Your task to perform on an android device: uninstall "Microsoft Excel" Image 0: 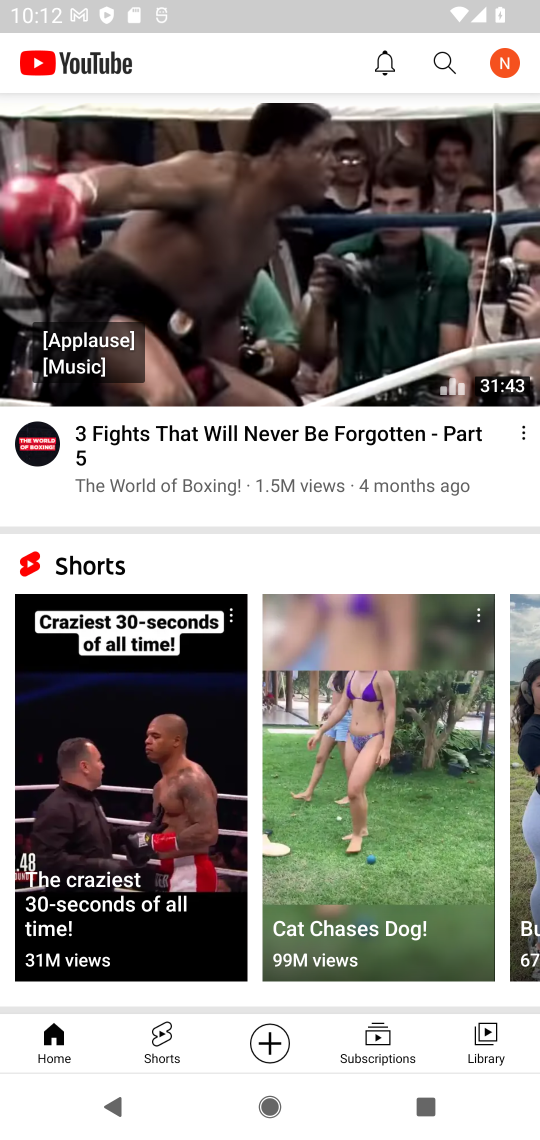
Step 0: press home button
Your task to perform on an android device: uninstall "Microsoft Excel" Image 1: 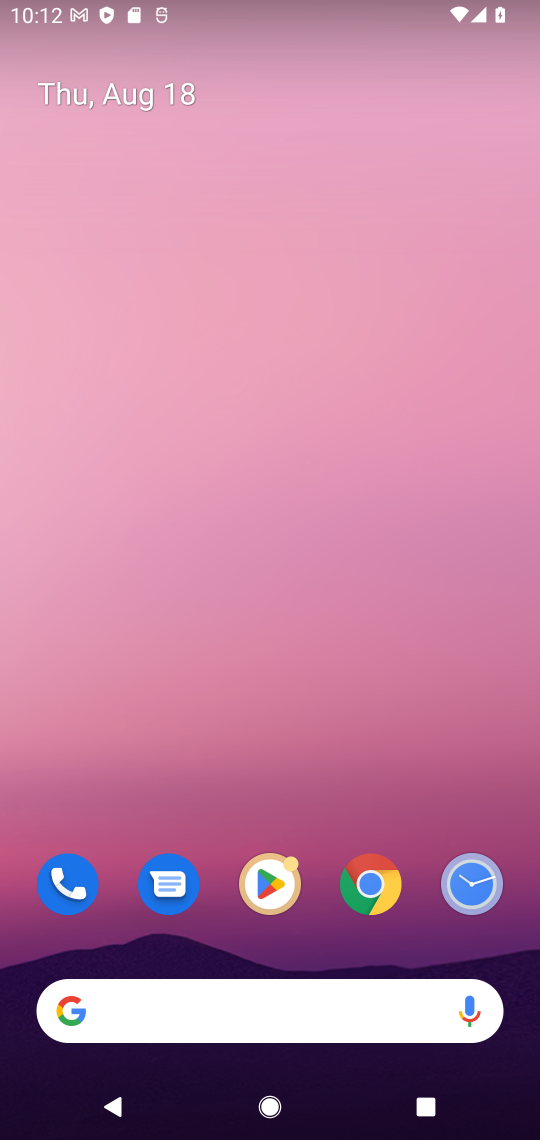
Step 1: drag from (183, 1009) to (278, 92)
Your task to perform on an android device: uninstall "Microsoft Excel" Image 2: 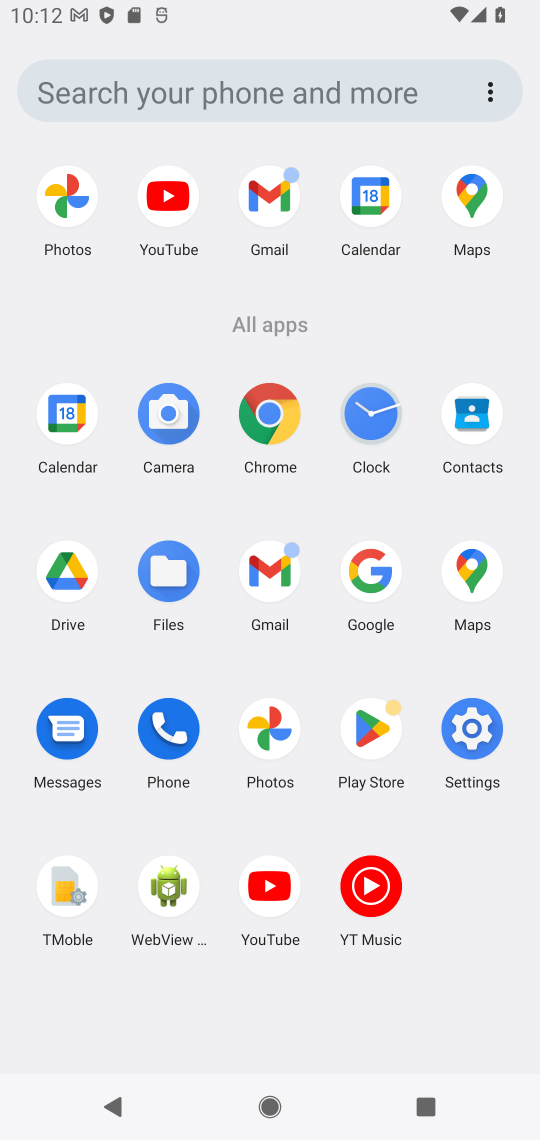
Step 2: click (371, 718)
Your task to perform on an android device: uninstall "Microsoft Excel" Image 3: 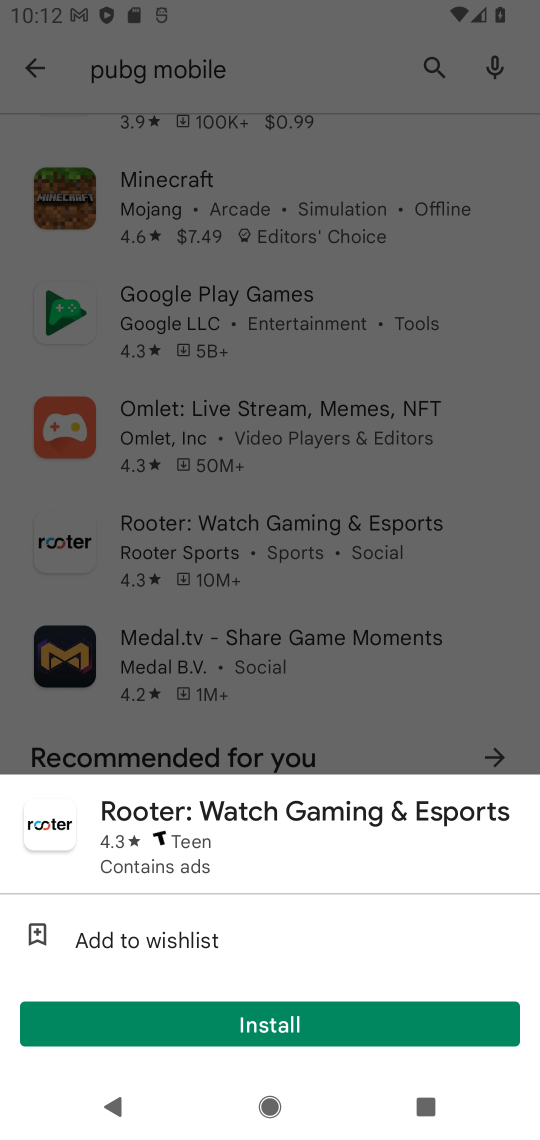
Step 3: press home button
Your task to perform on an android device: uninstall "Microsoft Excel" Image 4: 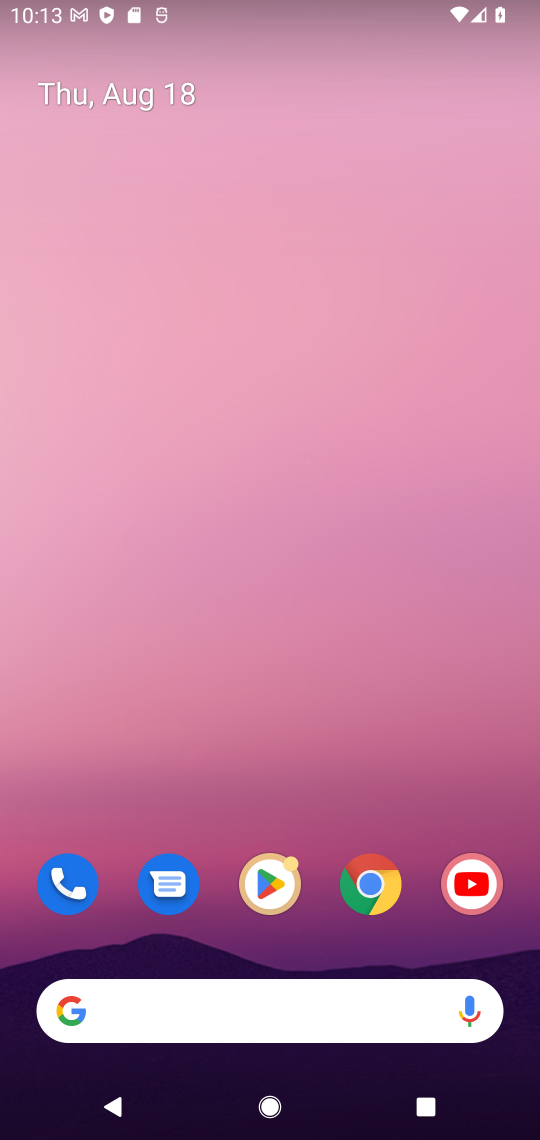
Step 4: drag from (222, 999) to (285, 67)
Your task to perform on an android device: uninstall "Microsoft Excel" Image 5: 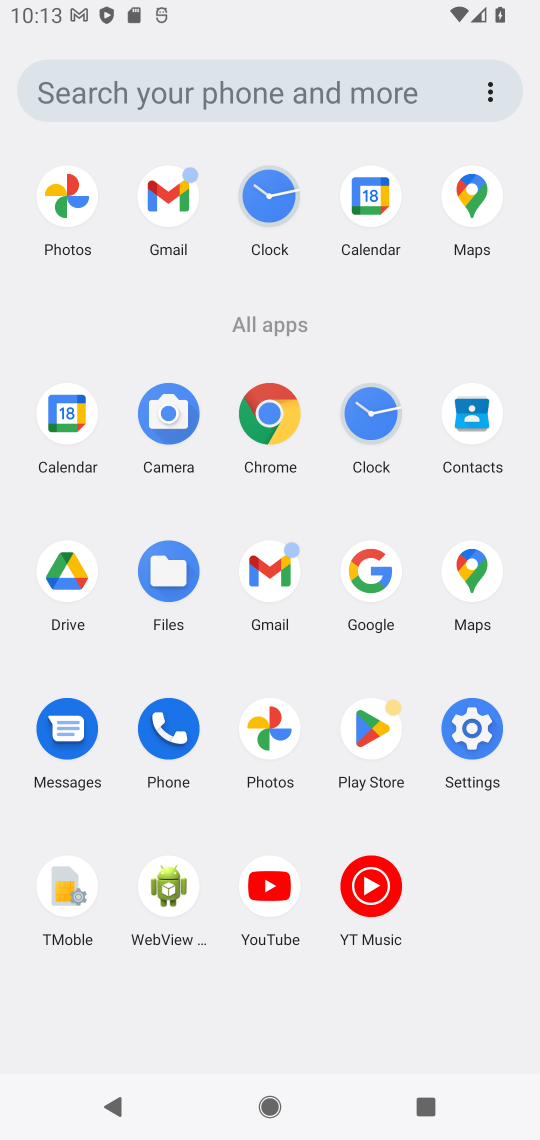
Step 5: click (362, 731)
Your task to perform on an android device: uninstall "Microsoft Excel" Image 6: 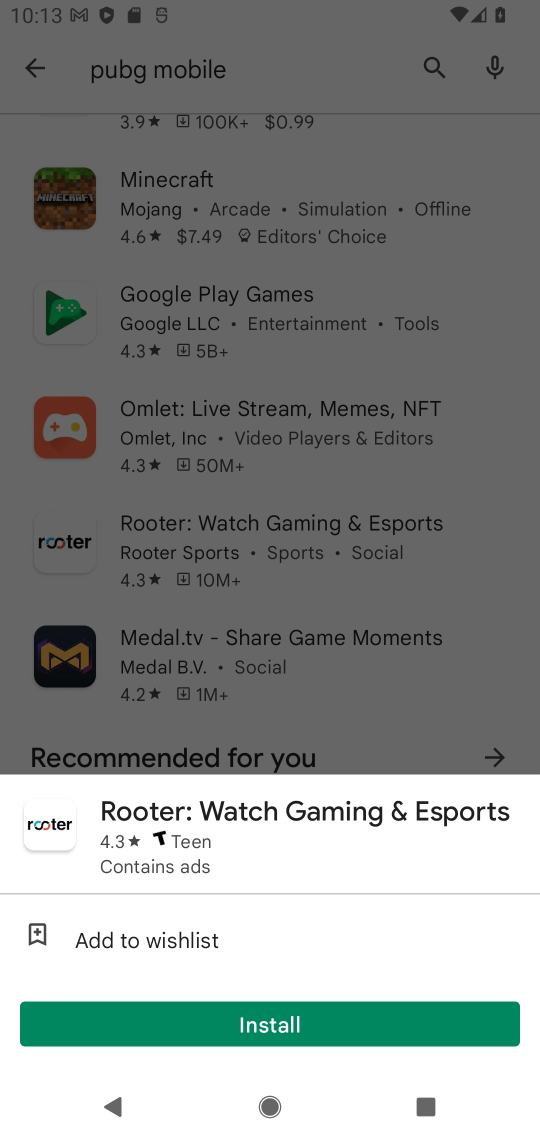
Step 6: click (316, 66)
Your task to perform on an android device: uninstall "Microsoft Excel" Image 7: 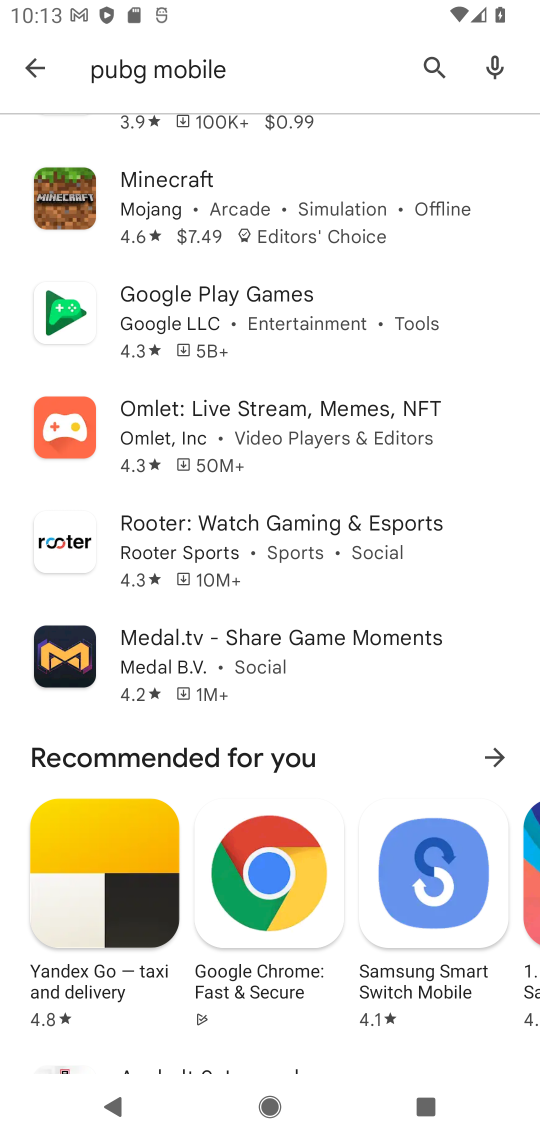
Step 7: press back button
Your task to perform on an android device: uninstall "Microsoft Excel" Image 8: 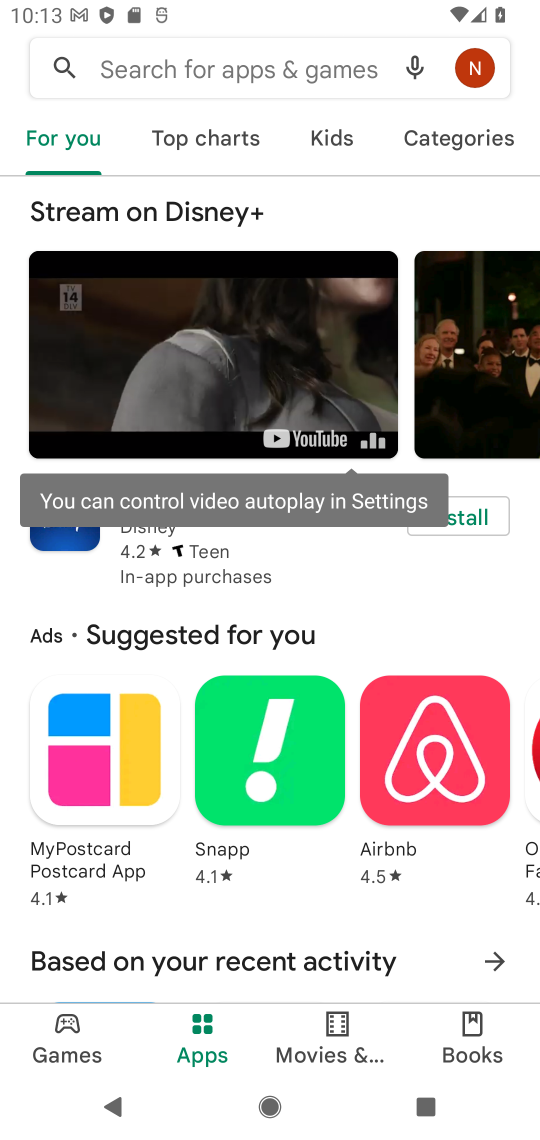
Step 8: click (202, 73)
Your task to perform on an android device: uninstall "Microsoft Excel" Image 9: 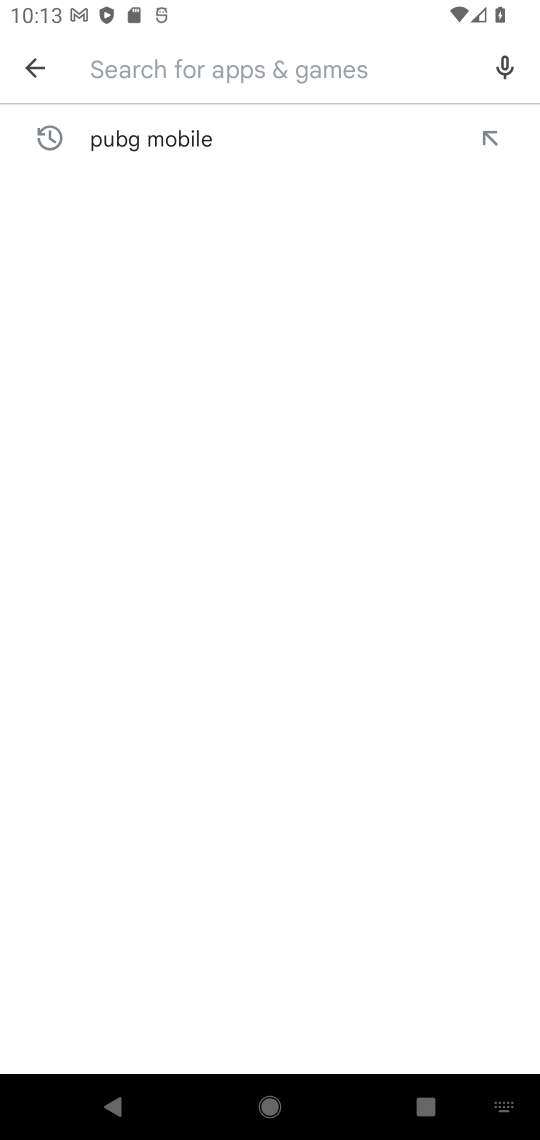
Step 9: type "Microsoft Excel"
Your task to perform on an android device: uninstall "Microsoft Excel" Image 10: 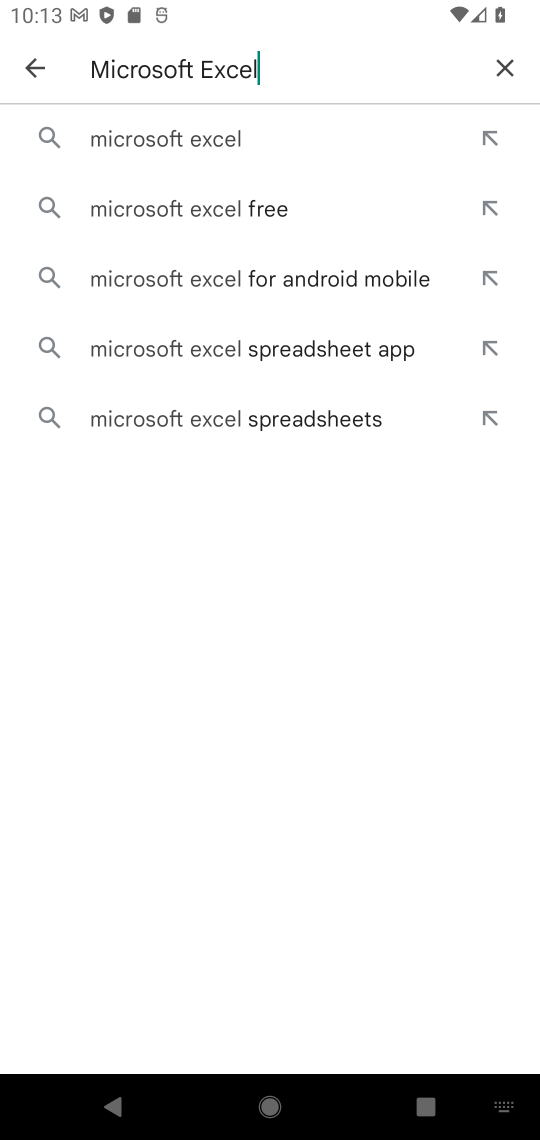
Step 10: click (215, 150)
Your task to perform on an android device: uninstall "Microsoft Excel" Image 11: 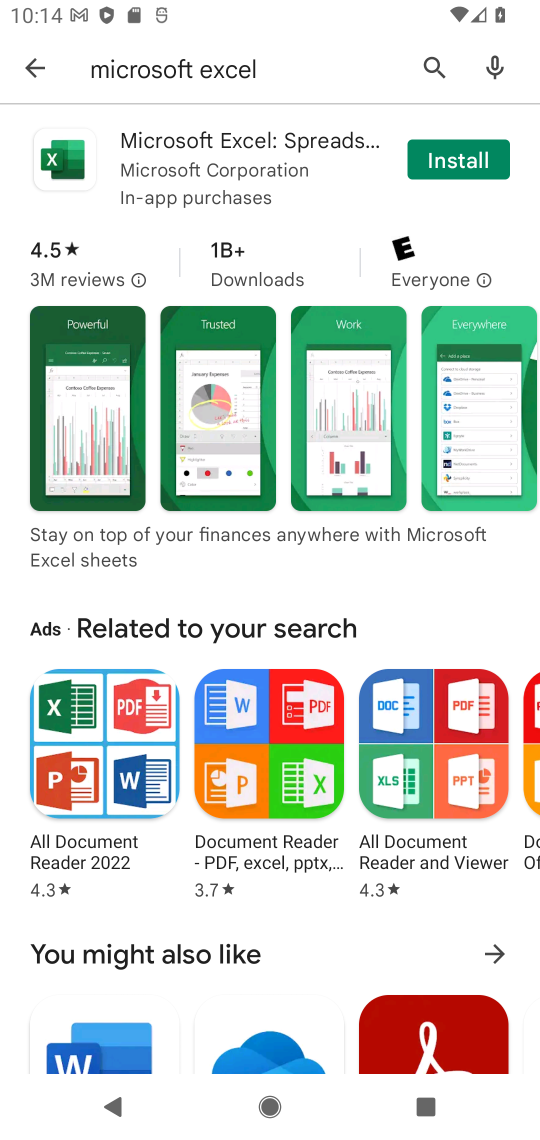
Step 11: task complete